Your task to perform on an android device: turn on translation in the chrome app Image 0: 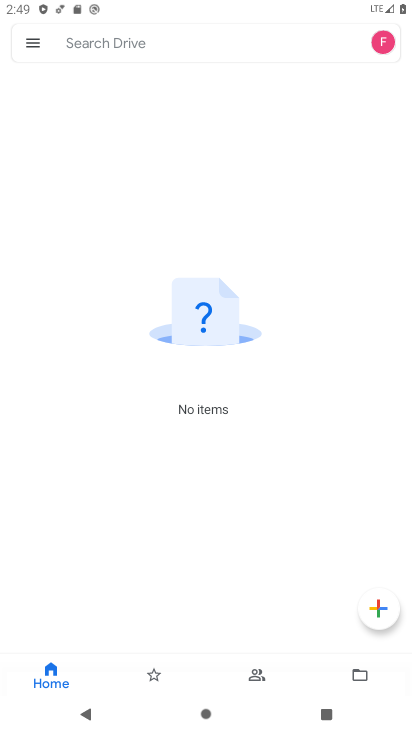
Step 0: press back button
Your task to perform on an android device: turn on translation in the chrome app Image 1: 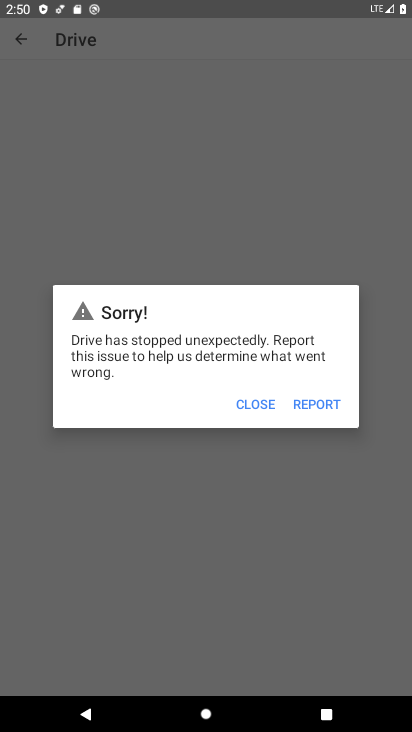
Step 1: press home button
Your task to perform on an android device: turn on translation in the chrome app Image 2: 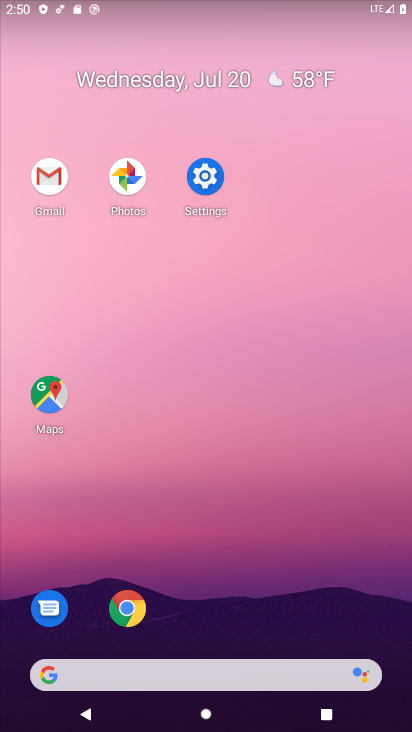
Step 2: click (130, 601)
Your task to perform on an android device: turn on translation in the chrome app Image 3: 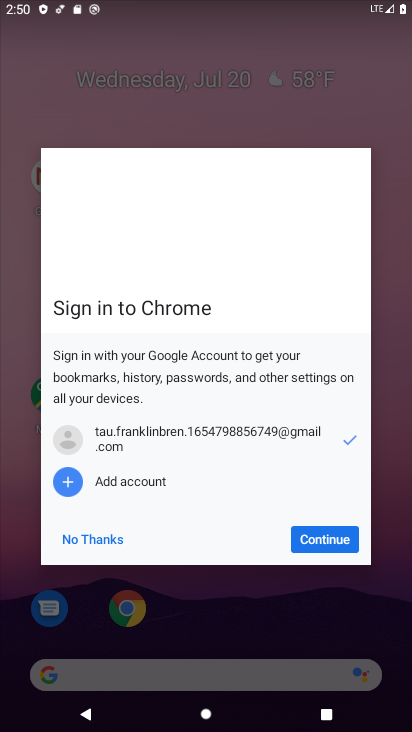
Step 3: click (327, 546)
Your task to perform on an android device: turn on translation in the chrome app Image 4: 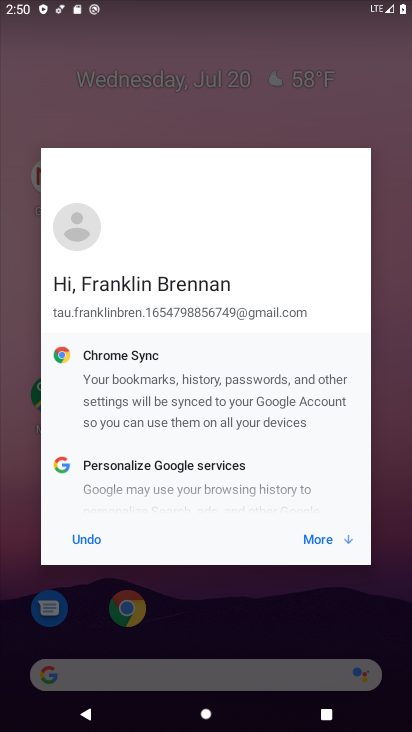
Step 4: click (303, 536)
Your task to perform on an android device: turn on translation in the chrome app Image 5: 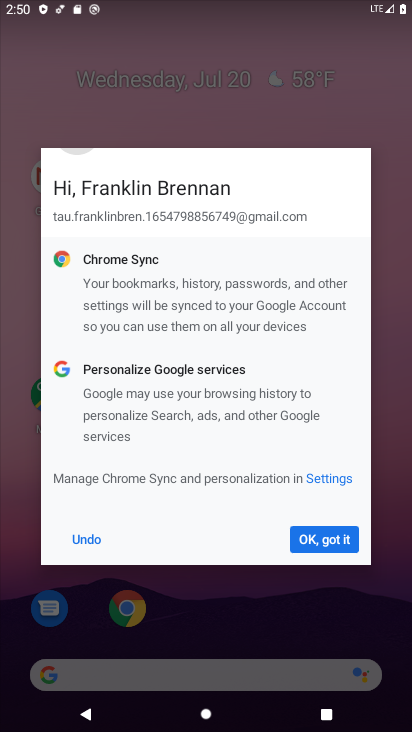
Step 5: click (306, 536)
Your task to perform on an android device: turn on translation in the chrome app Image 6: 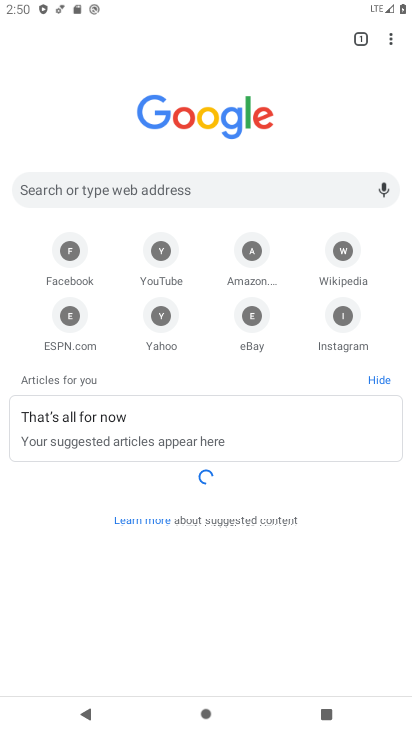
Step 6: click (392, 32)
Your task to perform on an android device: turn on translation in the chrome app Image 7: 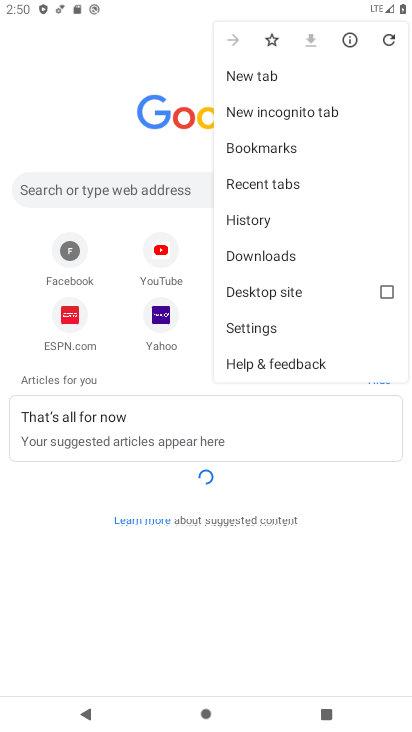
Step 7: click (255, 329)
Your task to perform on an android device: turn on translation in the chrome app Image 8: 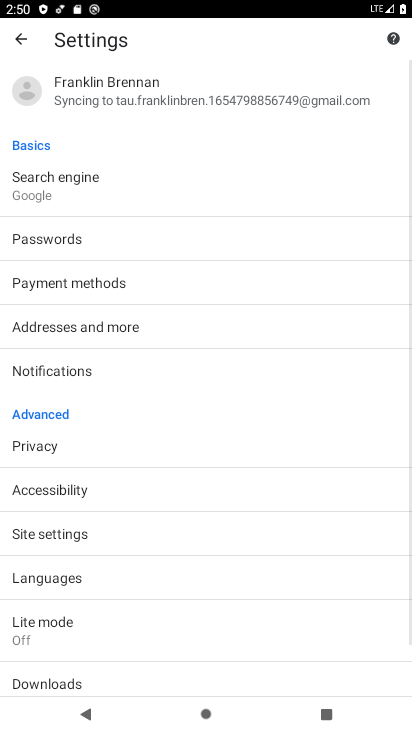
Step 8: click (61, 581)
Your task to perform on an android device: turn on translation in the chrome app Image 9: 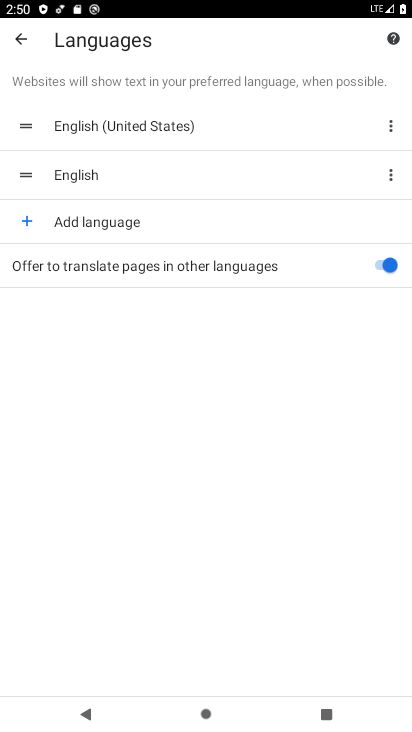
Step 9: task complete